Your task to perform on an android device: Open sound settings Image 0: 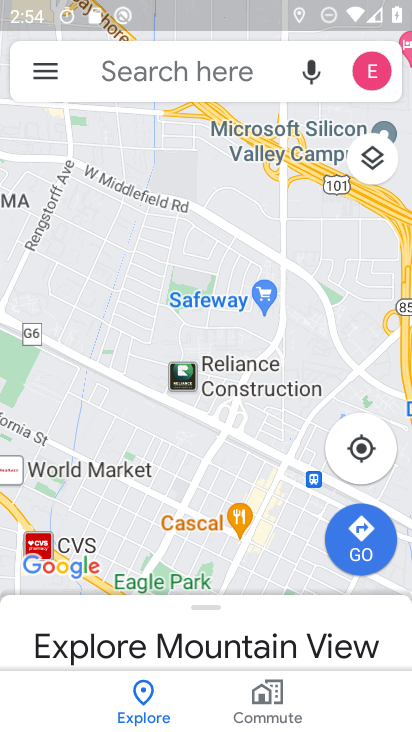
Step 0: press home button
Your task to perform on an android device: Open sound settings Image 1: 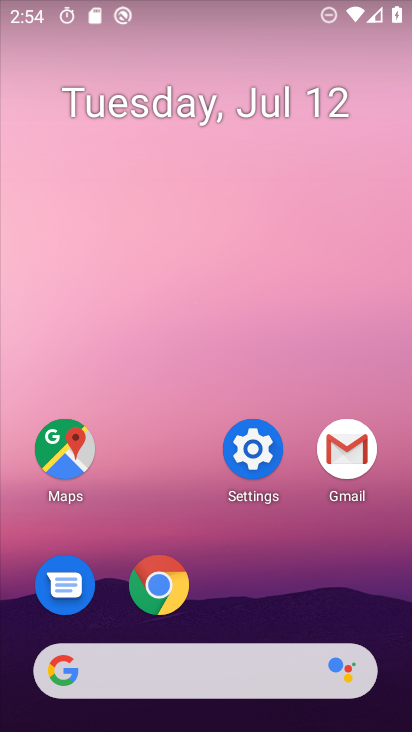
Step 1: drag from (398, 674) to (379, 150)
Your task to perform on an android device: Open sound settings Image 2: 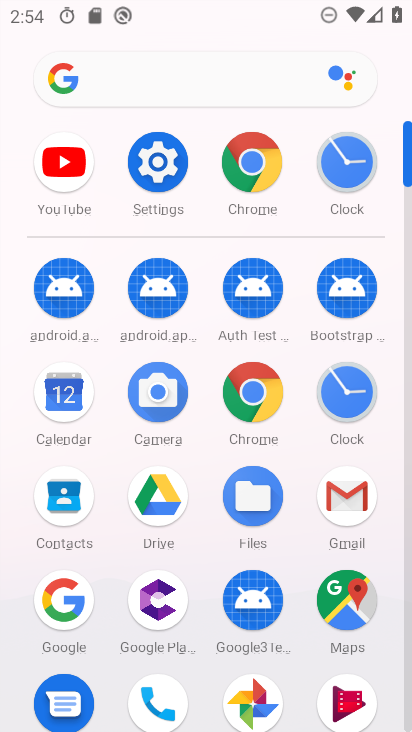
Step 2: click (159, 158)
Your task to perform on an android device: Open sound settings Image 3: 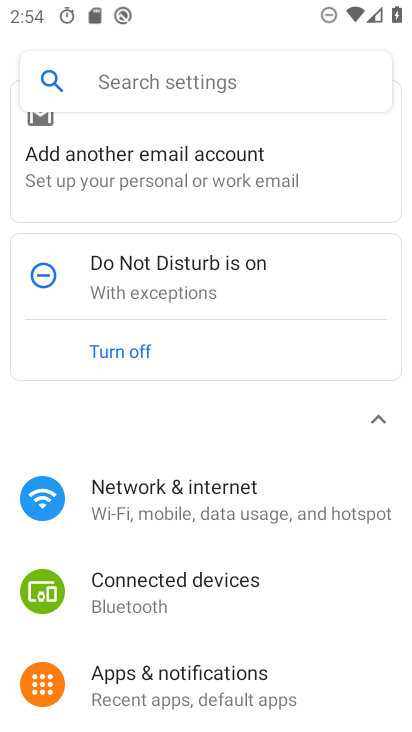
Step 3: drag from (282, 700) to (282, 255)
Your task to perform on an android device: Open sound settings Image 4: 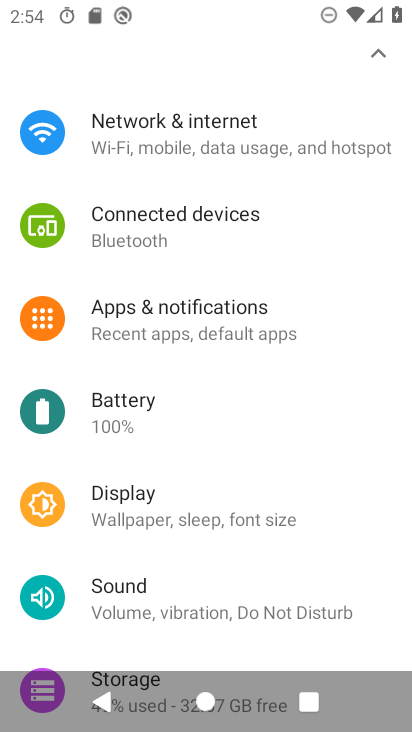
Step 4: click (123, 590)
Your task to perform on an android device: Open sound settings Image 5: 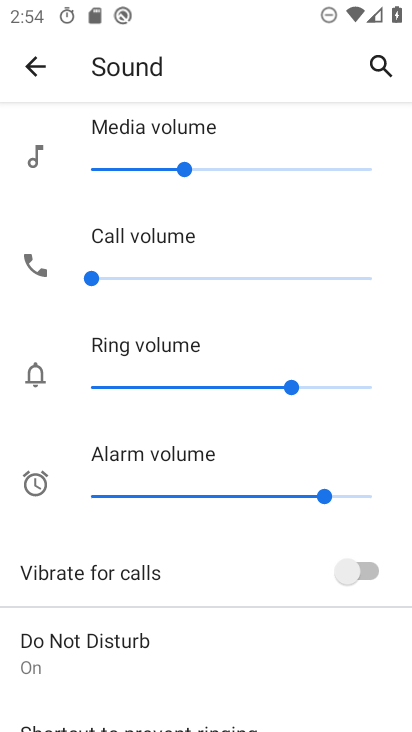
Step 5: drag from (207, 667) to (255, 223)
Your task to perform on an android device: Open sound settings Image 6: 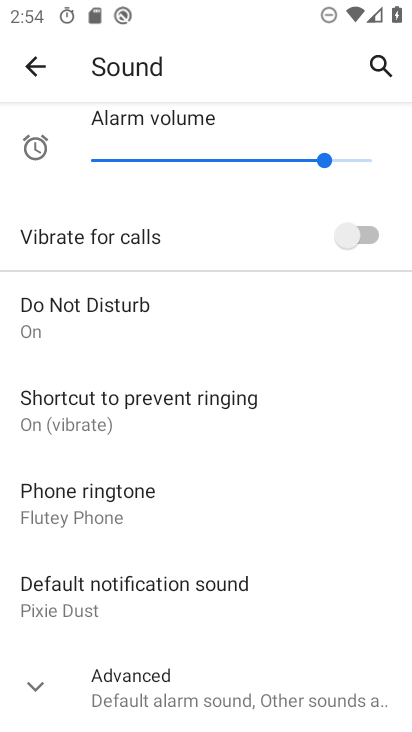
Step 6: click (34, 681)
Your task to perform on an android device: Open sound settings Image 7: 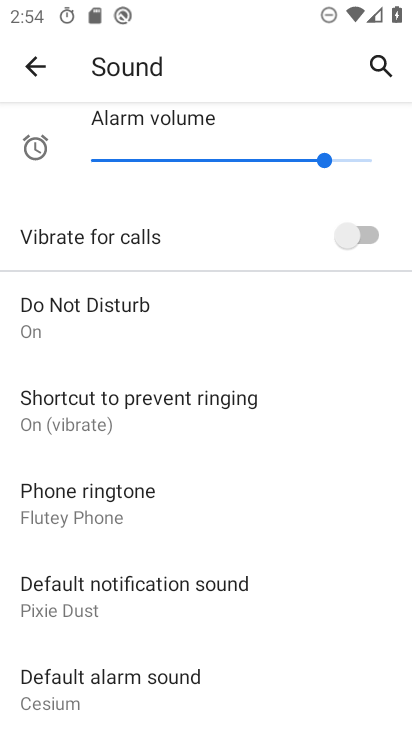
Step 7: task complete